Your task to perform on an android device: Open notification settings Image 0: 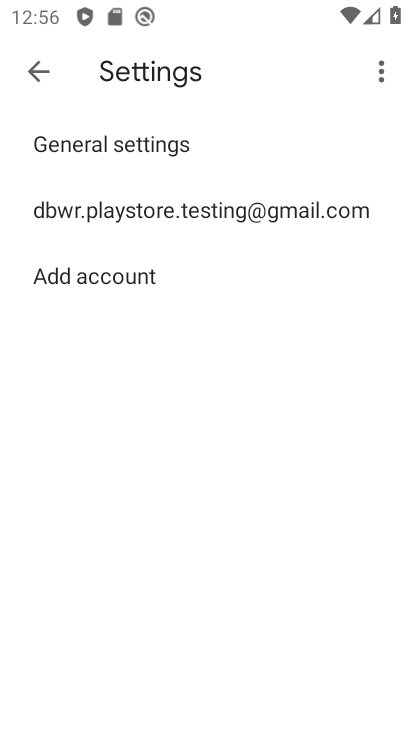
Step 0: press back button
Your task to perform on an android device: Open notification settings Image 1: 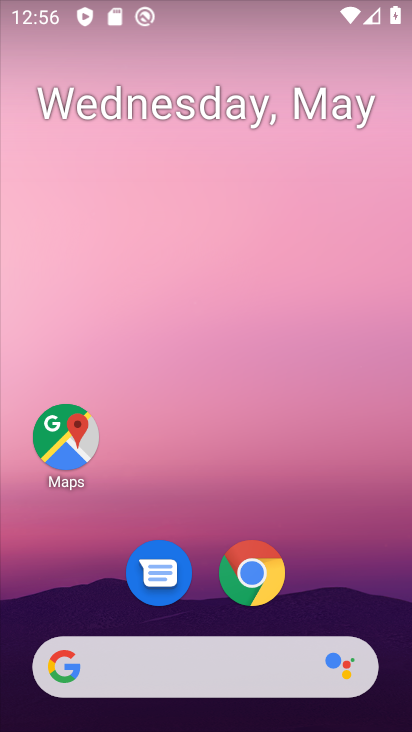
Step 1: drag from (101, 645) to (172, 264)
Your task to perform on an android device: Open notification settings Image 2: 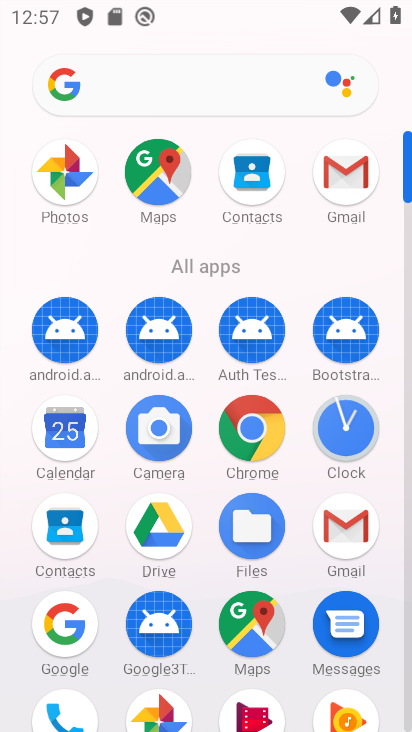
Step 2: drag from (183, 619) to (250, 293)
Your task to perform on an android device: Open notification settings Image 3: 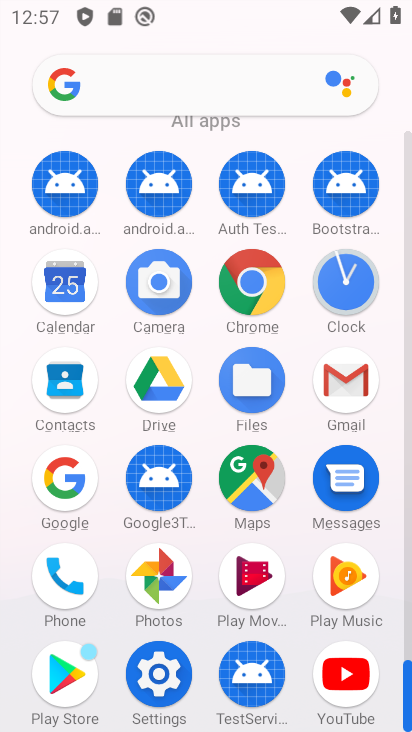
Step 3: click (155, 701)
Your task to perform on an android device: Open notification settings Image 4: 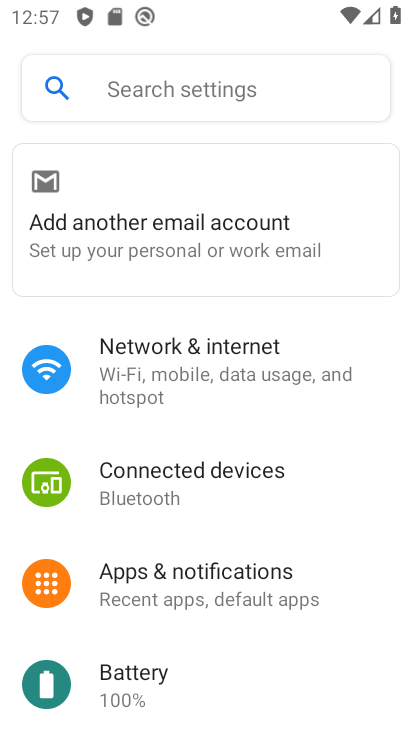
Step 4: click (233, 592)
Your task to perform on an android device: Open notification settings Image 5: 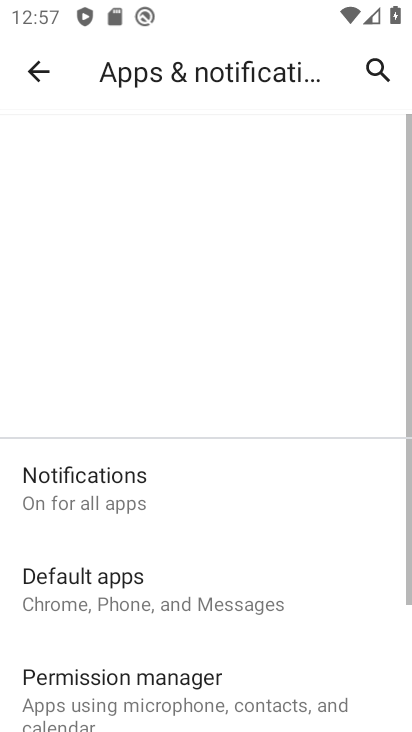
Step 5: click (200, 472)
Your task to perform on an android device: Open notification settings Image 6: 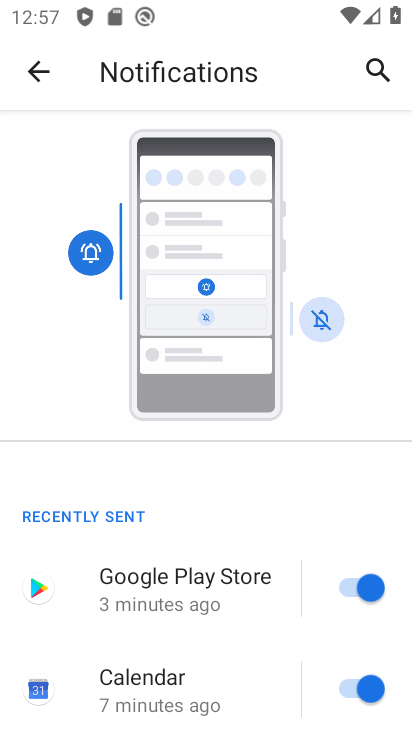
Step 6: task complete